Your task to perform on an android device: check battery use Image 0: 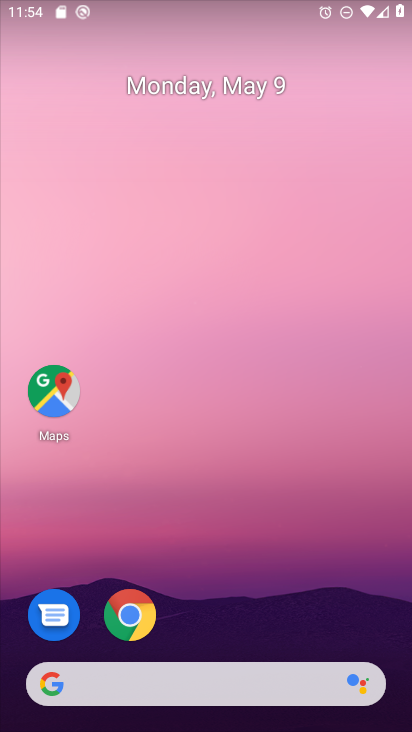
Step 0: drag from (270, 714) to (254, 298)
Your task to perform on an android device: check battery use Image 1: 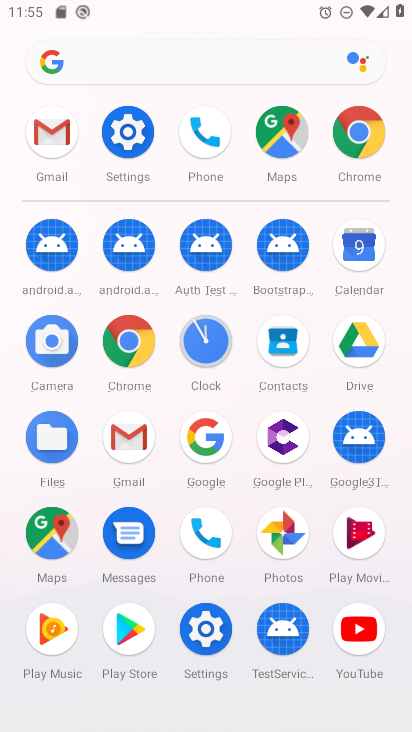
Step 1: click (202, 613)
Your task to perform on an android device: check battery use Image 2: 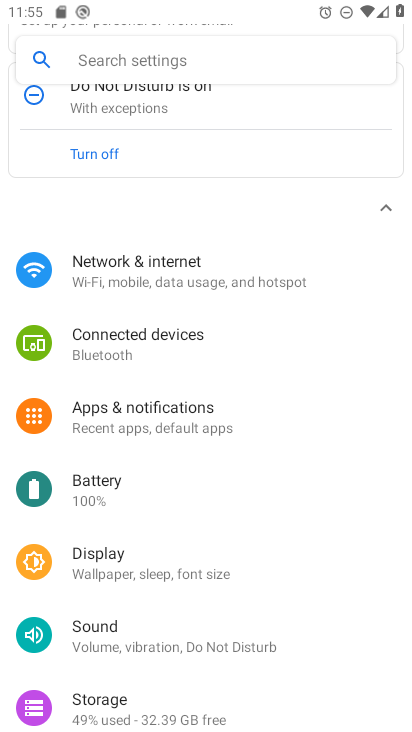
Step 2: click (89, 507)
Your task to perform on an android device: check battery use Image 3: 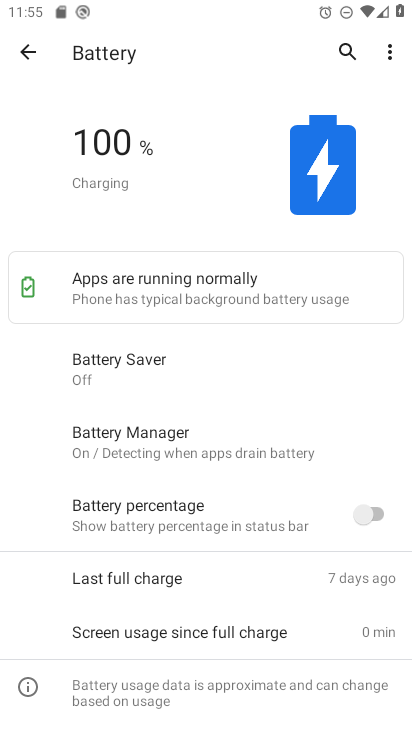
Step 3: task complete